Your task to perform on an android device: change the upload size in google photos Image 0: 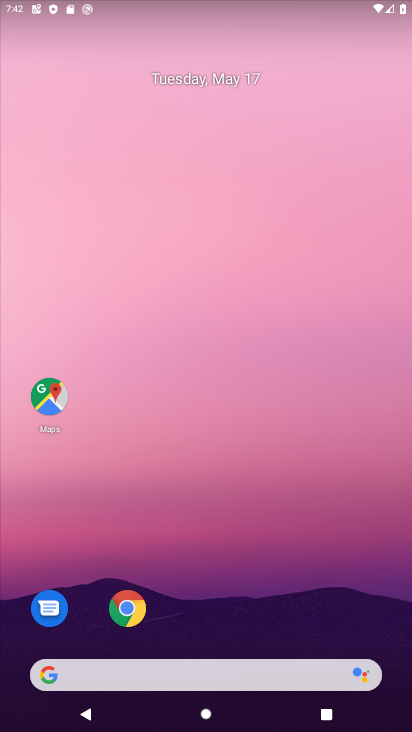
Step 0: drag from (152, 629) to (257, 166)
Your task to perform on an android device: change the upload size in google photos Image 1: 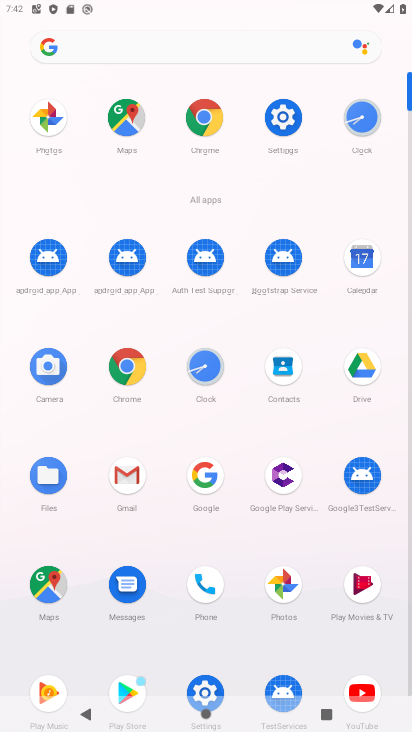
Step 1: click (50, 125)
Your task to perform on an android device: change the upload size in google photos Image 2: 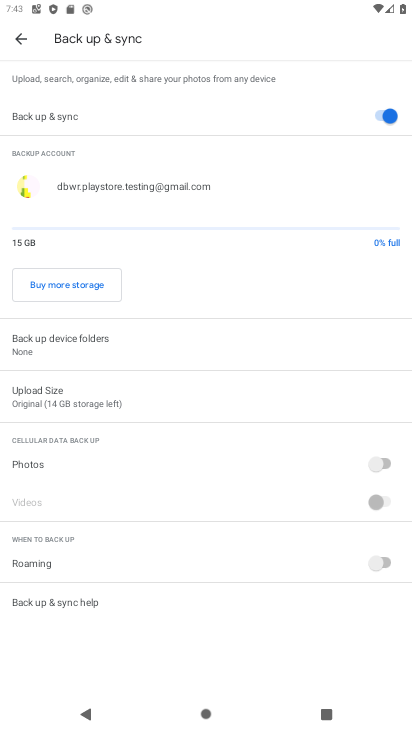
Step 2: click (100, 398)
Your task to perform on an android device: change the upload size in google photos Image 3: 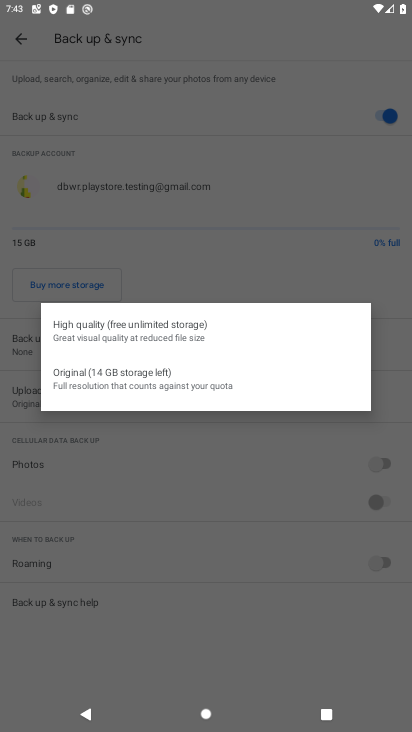
Step 3: click (160, 341)
Your task to perform on an android device: change the upload size in google photos Image 4: 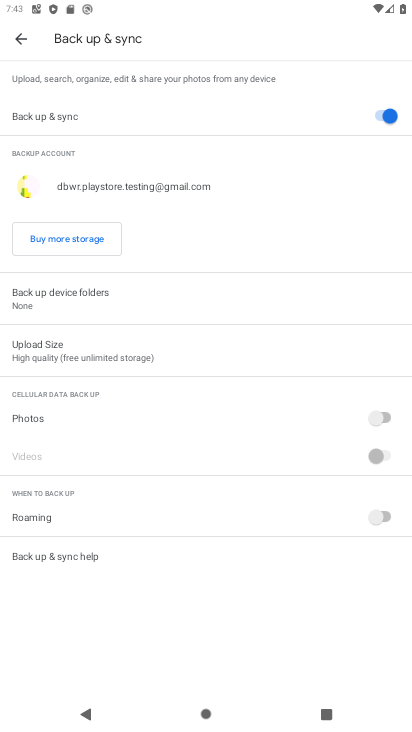
Step 4: task complete